Your task to perform on an android device: clear history in the chrome app Image 0: 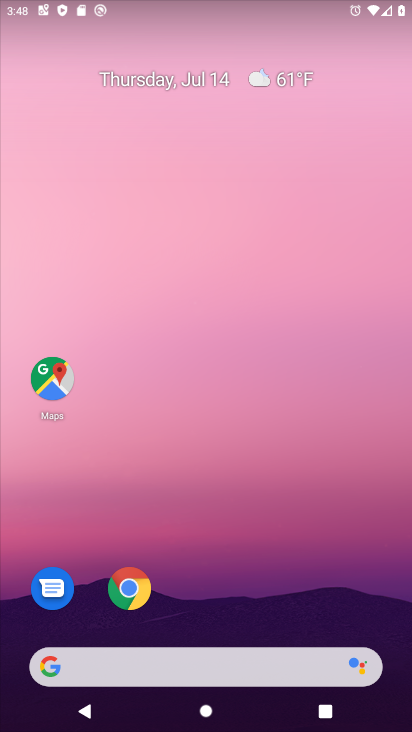
Step 0: press home button
Your task to perform on an android device: clear history in the chrome app Image 1: 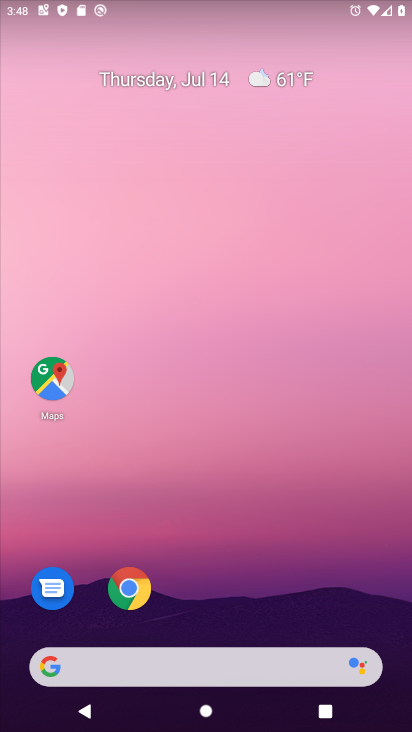
Step 1: click (116, 588)
Your task to perform on an android device: clear history in the chrome app Image 2: 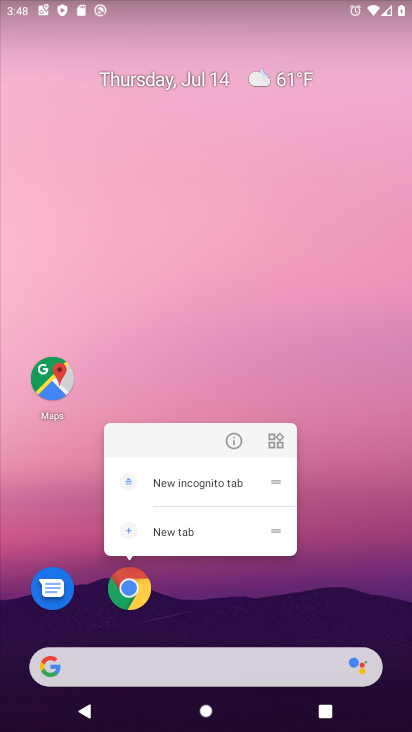
Step 2: click (116, 588)
Your task to perform on an android device: clear history in the chrome app Image 3: 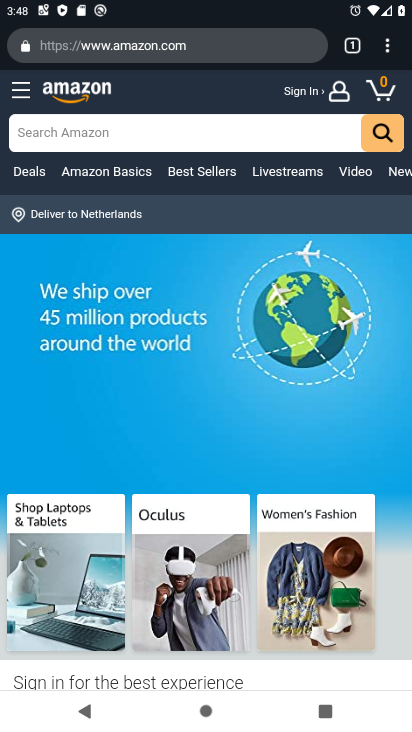
Step 3: drag from (391, 43) to (314, 251)
Your task to perform on an android device: clear history in the chrome app Image 4: 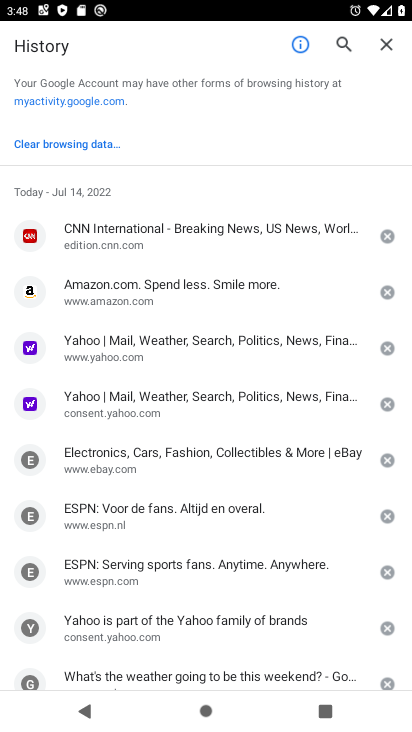
Step 4: click (59, 149)
Your task to perform on an android device: clear history in the chrome app Image 5: 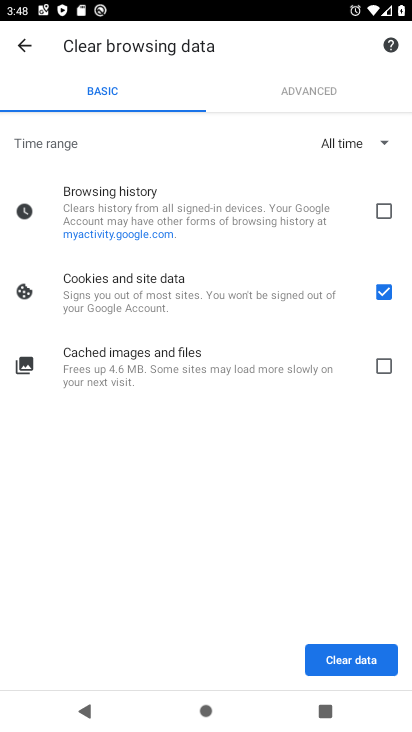
Step 5: click (387, 212)
Your task to perform on an android device: clear history in the chrome app Image 6: 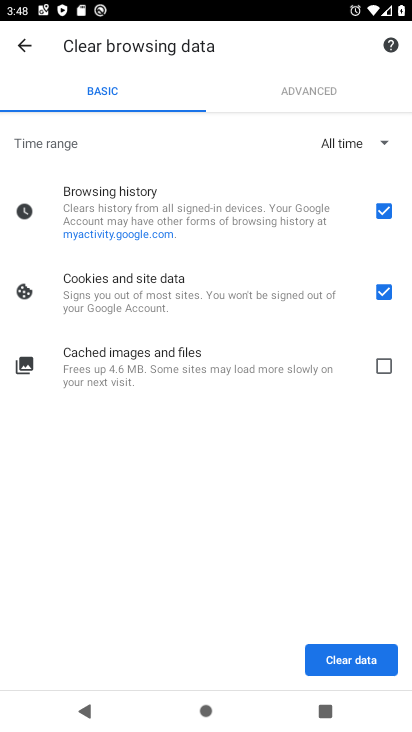
Step 6: click (381, 287)
Your task to perform on an android device: clear history in the chrome app Image 7: 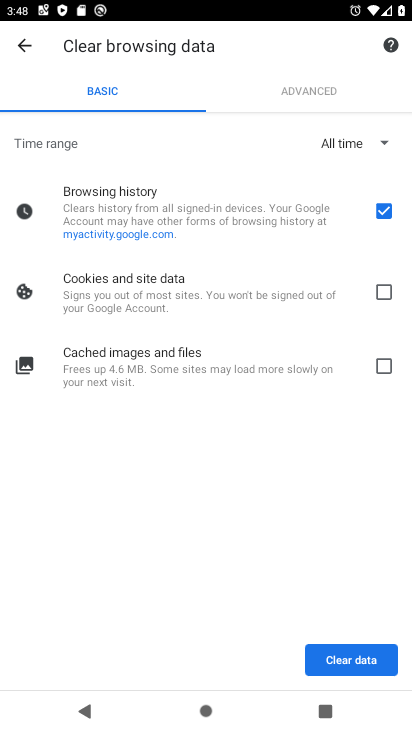
Step 7: click (354, 656)
Your task to perform on an android device: clear history in the chrome app Image 8: 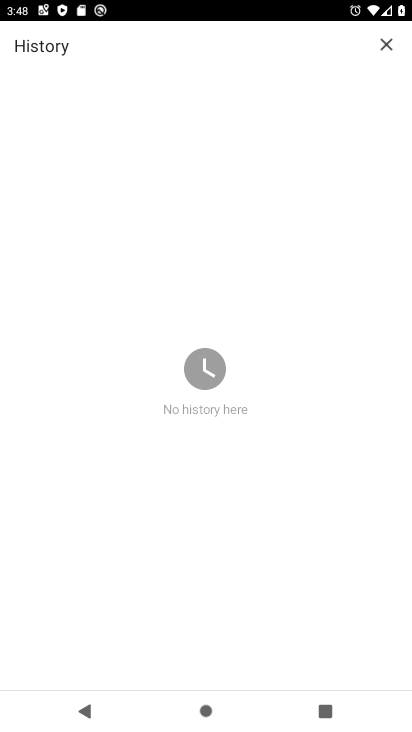
Step 8: task complete